Your task to perform on an android device: add a contact in the contacts app Image 0: 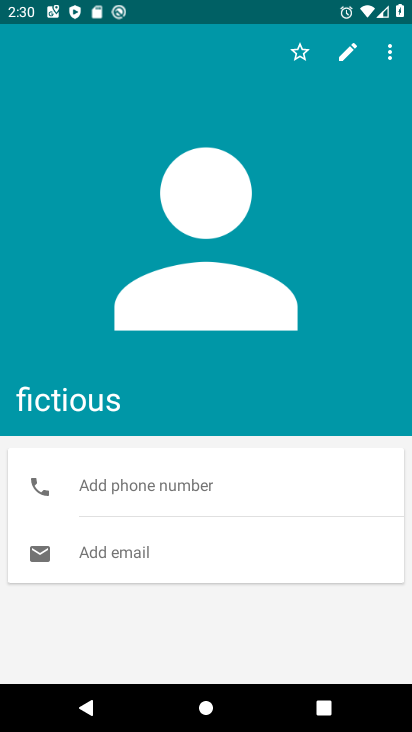
Step 0: press home button
Your task to perform on an android device: add a contact in the contacts app Image 1: 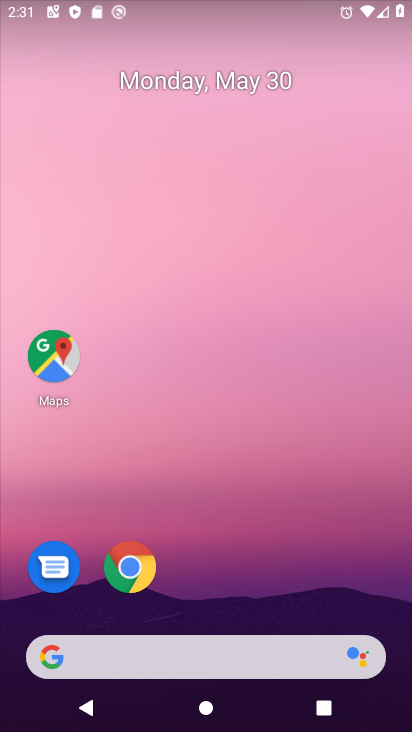
Step 1: drag from (197, 632) to (265, 0)
Your task to perform on an android device: add a contact in the contacts app Image 2: 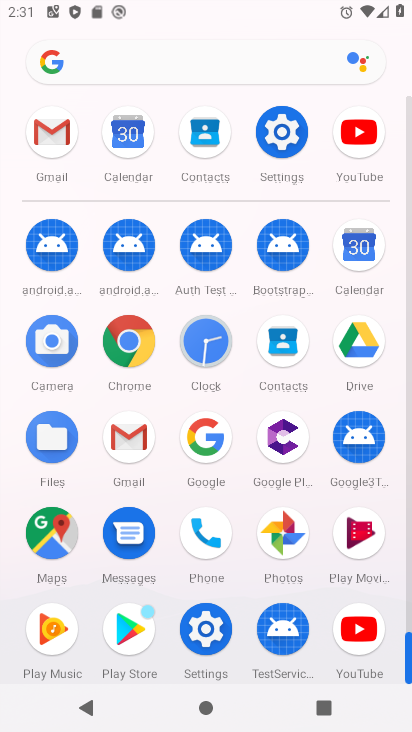
Step 2: click (283, 359)
Your task to perform on an android device: add a contact in the contacts app Image 3: 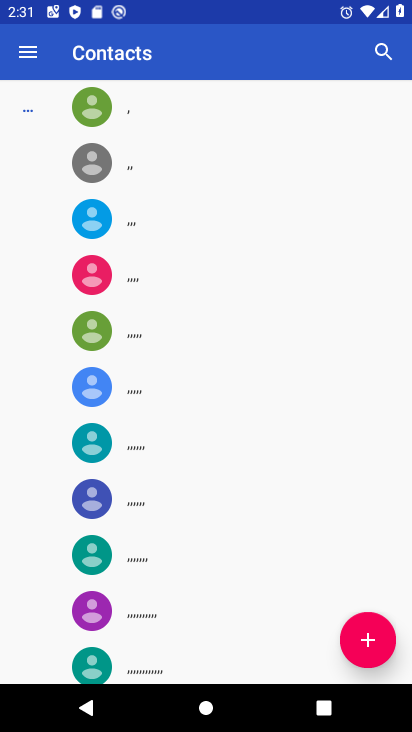
Step 3: click (375, 631)
Your task to perform on an android device: add a contact in the contacts app Image 4: 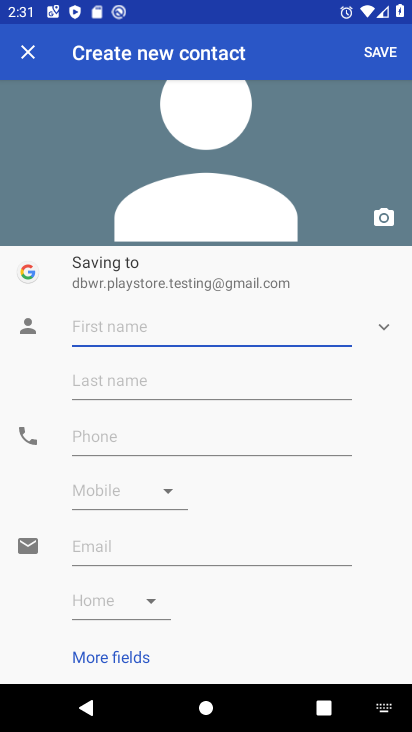
Step 4: type "!@%$"
Your task to perform on an android device: add a contact in the contacts app Image 5: 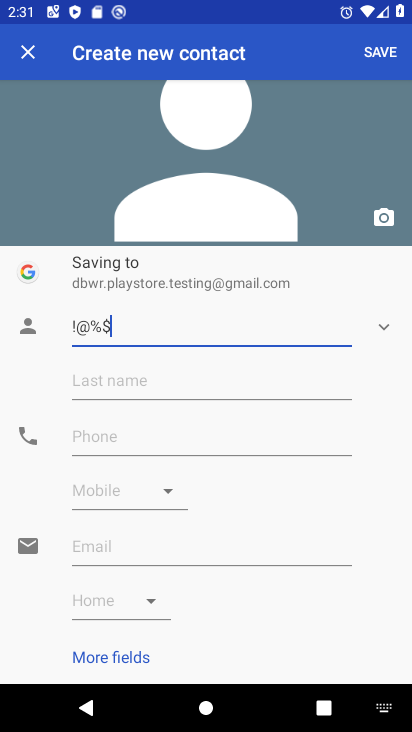
Step 5: click (371, 46)
Your task to perform on an android device: add a contact in the contacts app Image 6: 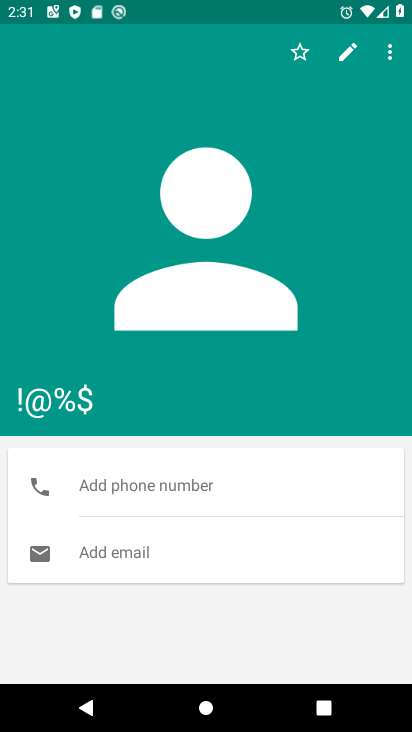
Step 6: task complete